Your task to perform on an android device: find photos in the google photos app Image 0: 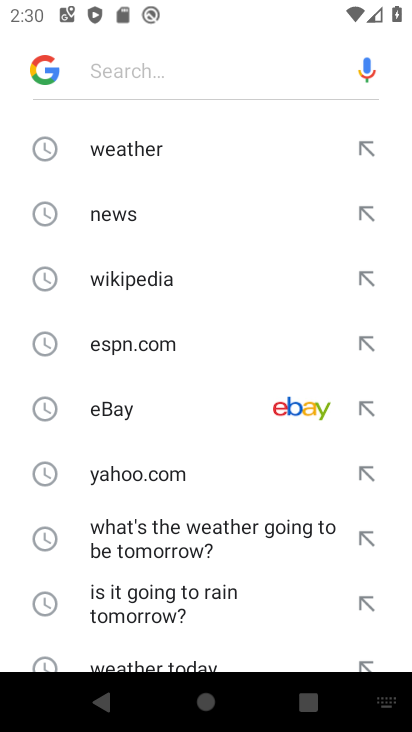
Step 0: press home button
Your task to perform on an android device: find photos in the google photos app Image 1: 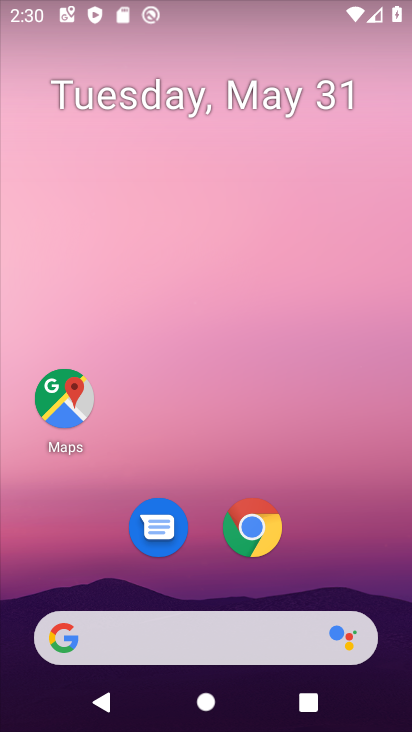
Step 1: drag from (363, 495) to (348, 5)
Your task to perform on an android device: find photos in the google photos app Image 2: 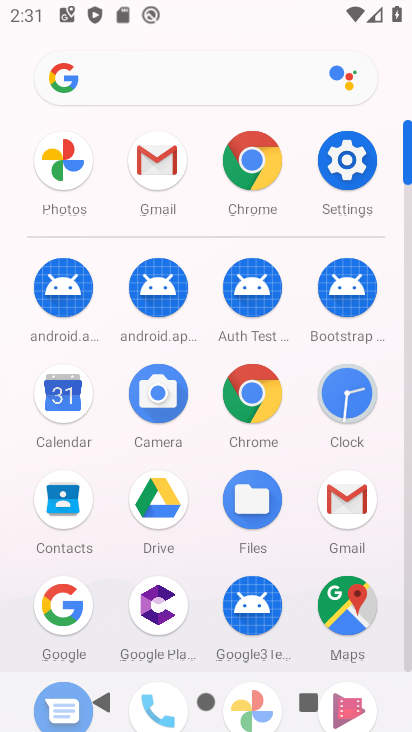
Step 2: click (58, 160)
Your task to perform on an android device: find photos in the google photos app Image 3: 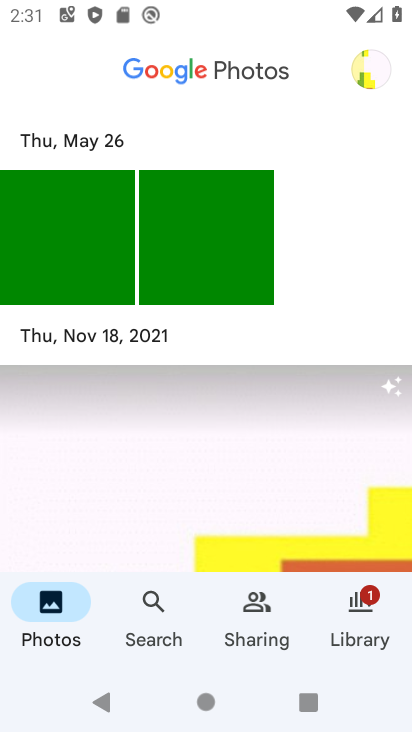
Step 3: task complete